Your task to perform on an android device: Open the calendar app, open the side menu, and click the "Day" option Image 0: 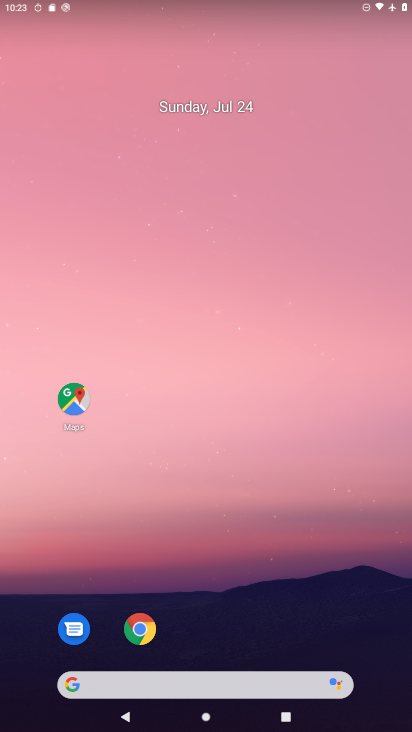
Step 0: drag from (218, 654) to (269, 183)
Your task to perform on an android device: Open the calendar app, open the side menu, and click the "Day" option Image 1: 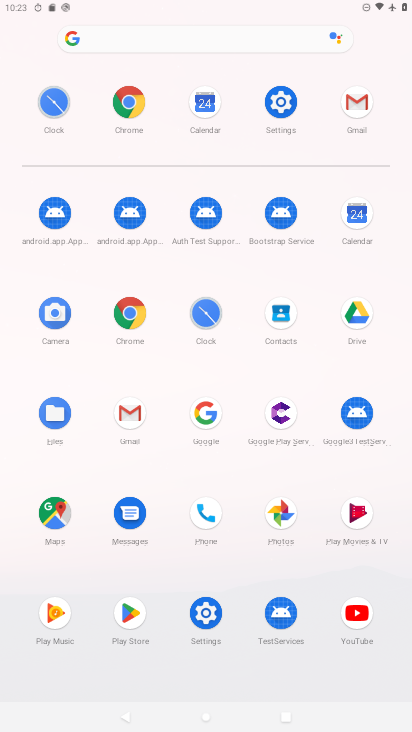
Step 1: click (352, 238)
Your task to perform on an android device: Open the calendar app, open the side menu, and click the "Day" option Image 2: 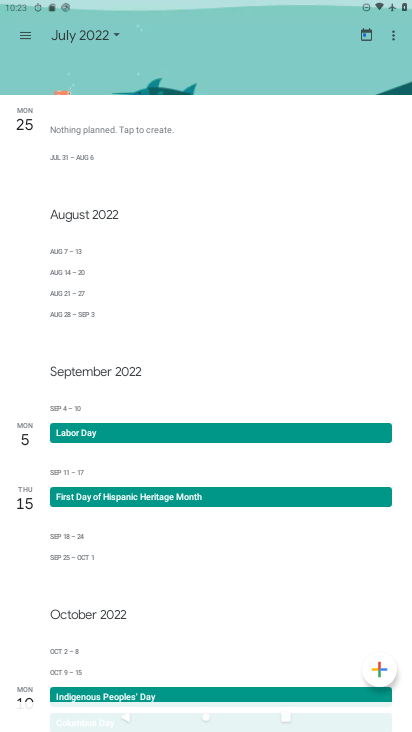
Step 2: click (29, 37)
Your task to perform on an android device: Open the calendar app, open the side menu, and click the "Day" option Image 3: 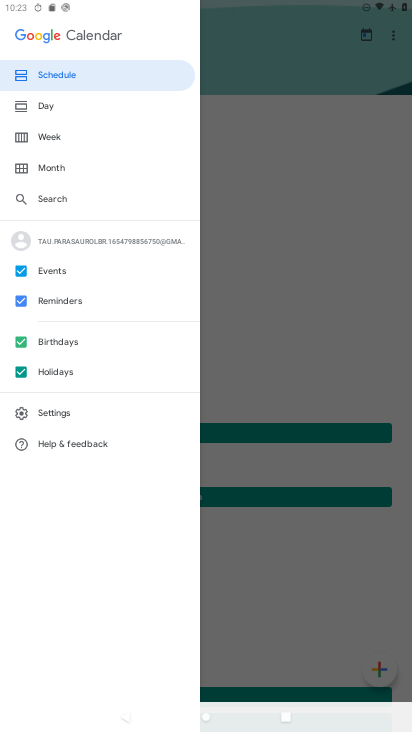
Step 3: click (60, 108)
Your task to perform on an android device: Open the calendar app, open the side menu, and click the "Day" option Image 4: 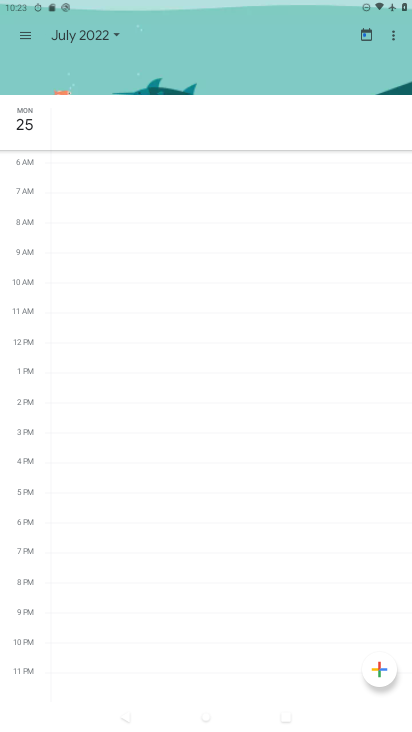
Step 4: task complete